Your task to perform on an android device: turn off data saver in the chrome app Image 0: 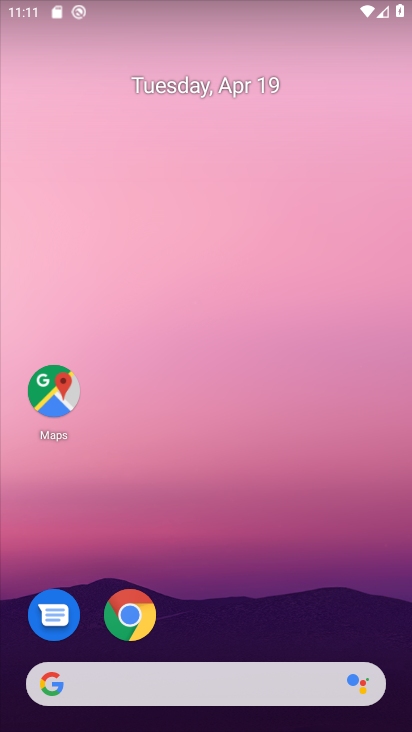
Step 0: click (123, 618)
Your task to perform on an android device: turn off data saver in the chrome app Image 1: 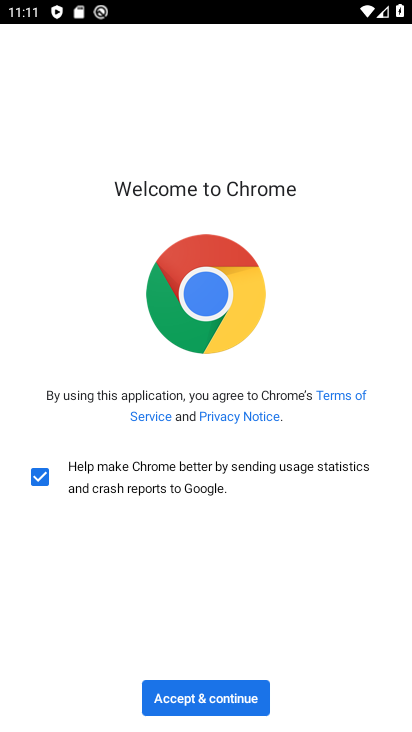
Step 1: click (229, 695)
Your task to perform on an android device: turn off data saver in the chrome app Image 2: 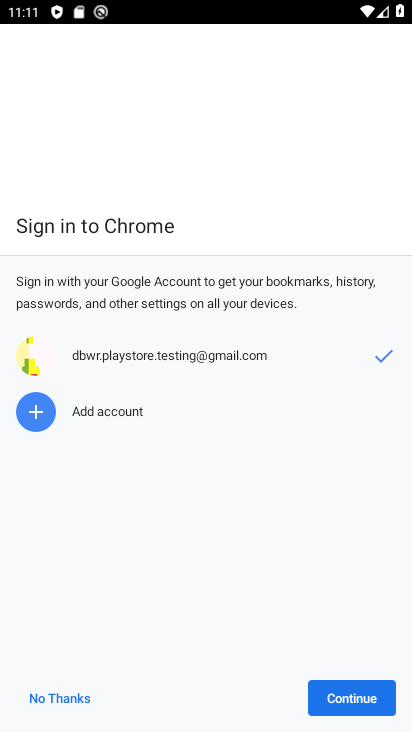
Step 2: click (340, 709)
Your task to perform on an android device: turn off data saver in the chrome app Image 3: 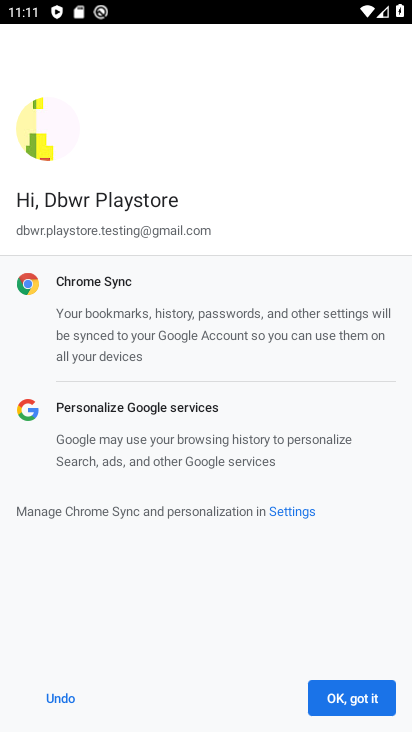
Step 3: click (336, 698)
Your task to perform on an android device: turn off data saver in the chrome app Image 4: 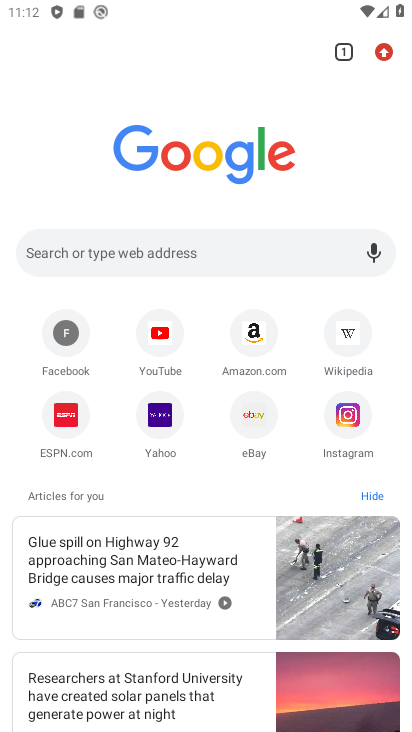
Step 4: drag from (392, 57) to (223, 485)
Your task to perform on an android device: turn off data saver in the chrome app Image 5: 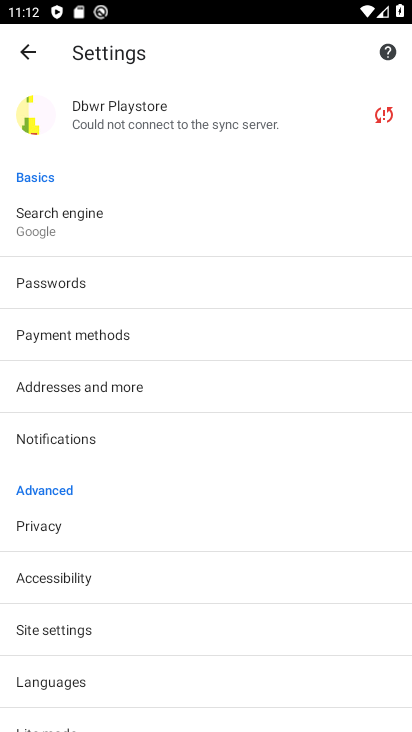
Step 5: drag from (277, 635) to (251, 336)
Your task to perform on an android device: turn off data saver in the chrome app Image 6: 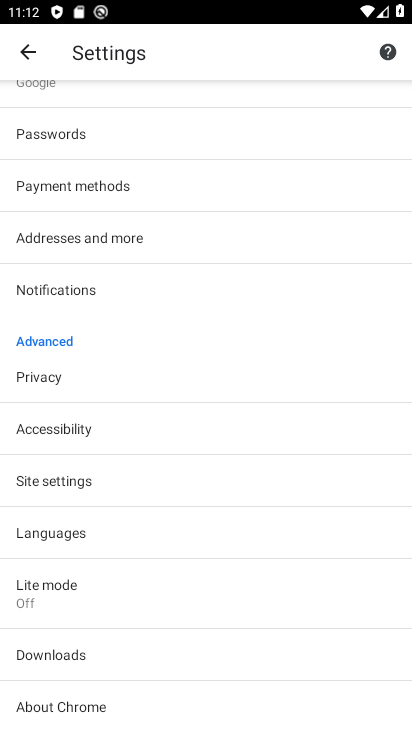
Step 6: click (86, 594)
Your task to perform on an android device: turn off data saver in the chrome app Image 7: 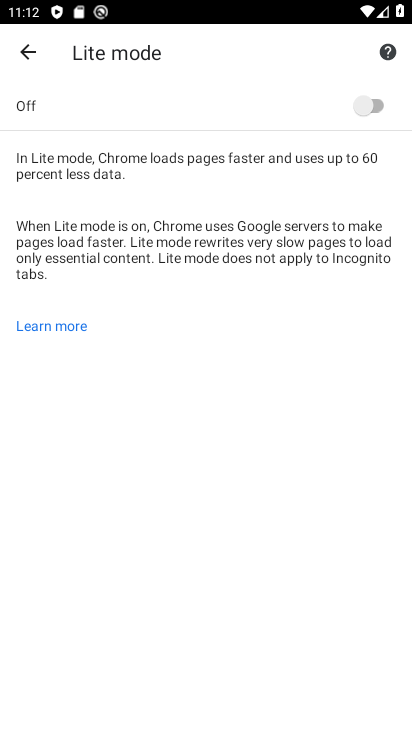
Step 7: task complete